Your task to perform on an android device: toggle airplane mode Image 0: 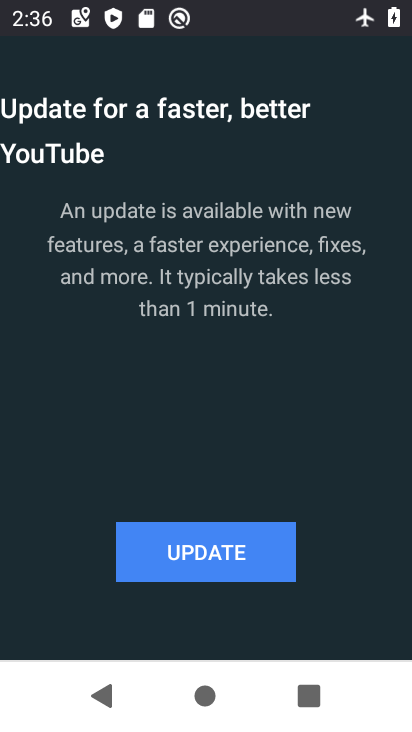
Step 0: press back button
Your task to perform on an android device: toggle airplane mode Image 1: 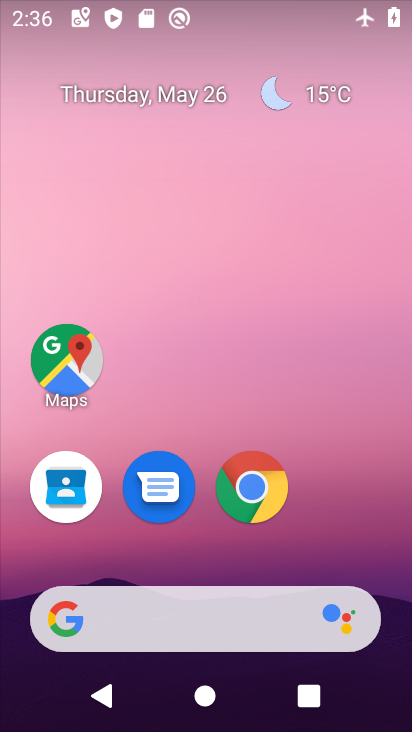
Step 1: drag from (197, 568) to (196, 142)
Your task to perform on an android device: toggle airplane mode Image 2: 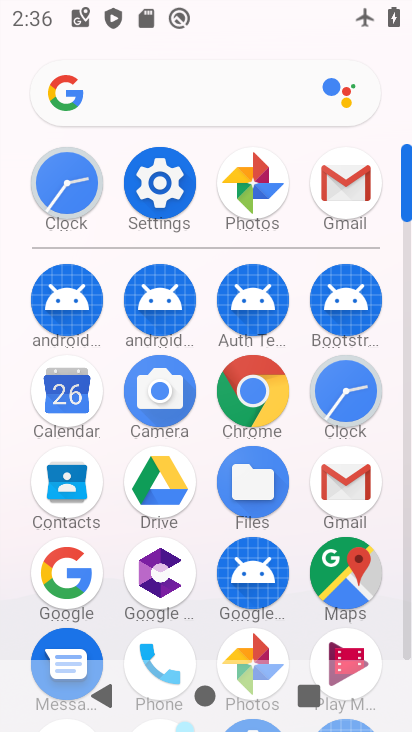
Step 2: click (175, 164)
Your task to perform on an android device: toggle airplane mode Image 3: 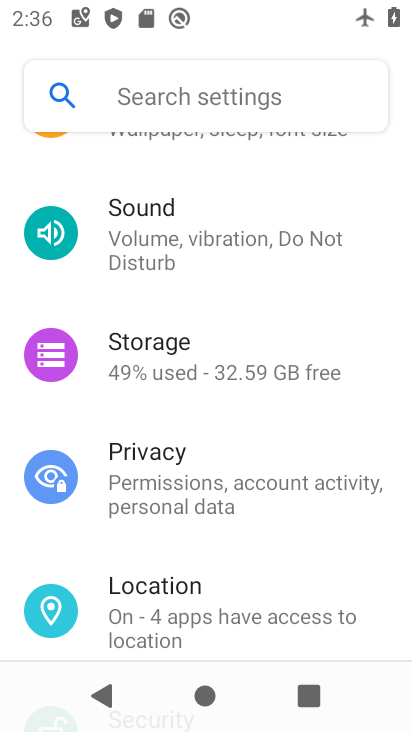
Step 3: drag from (229, 209) to (236, 525)
Your task to perform on an android device: toggle airplane mode Image 4: 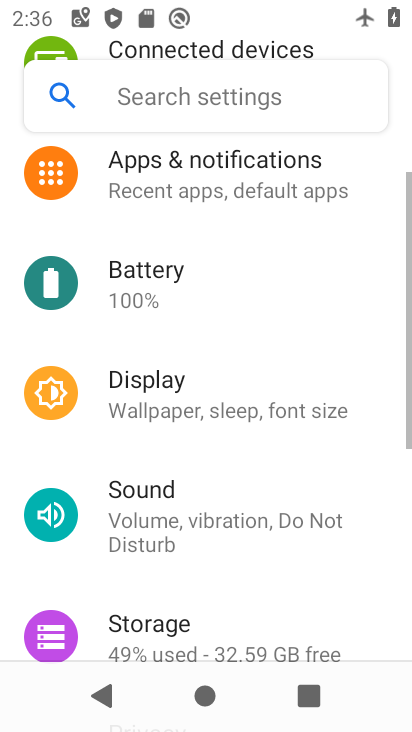
Step 4: drag from (233, 278) to (241, 518)
Your task to perform on an android device: toggle airplane mode Image 5: 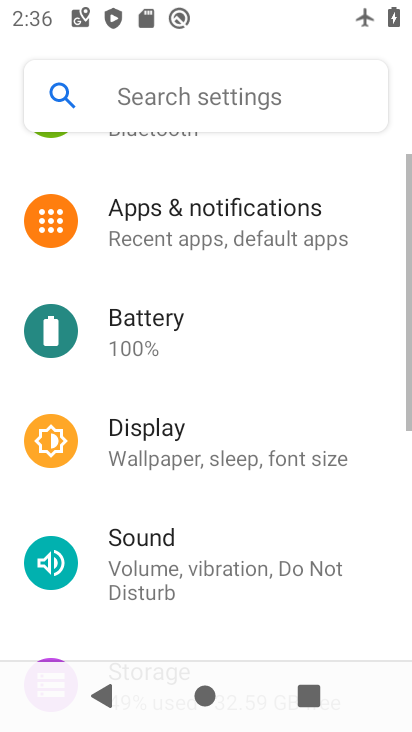
Step 5: drag from (238, 261) to (238, 482)
Your task to perform on an android device: toggle airplane mode Image 6: 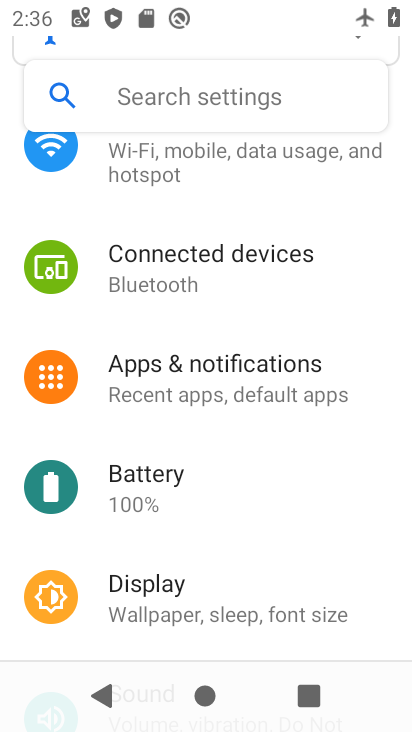
Step 6: drag from (241, 253) to (244, 544)
Your task to perform on an android device: toggle airplane mode Image 7: 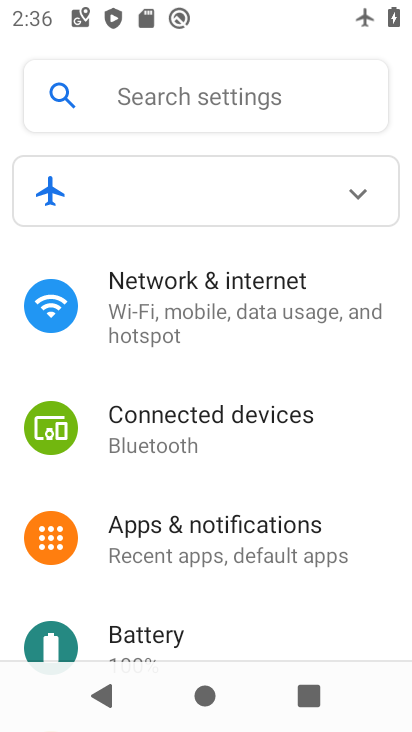
Step 7: click (209, 292)
Your task to perform on an android device: toggle airplane mode Image 8: 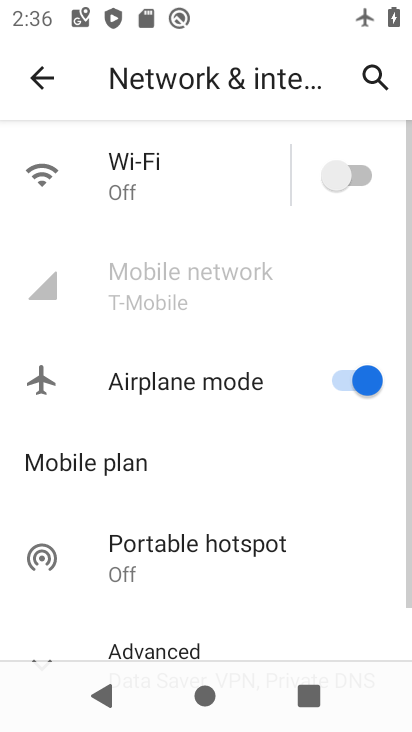
Step 8: click (336, 379)
Your task to perform on an android device: toggle airplane mode Image 9: 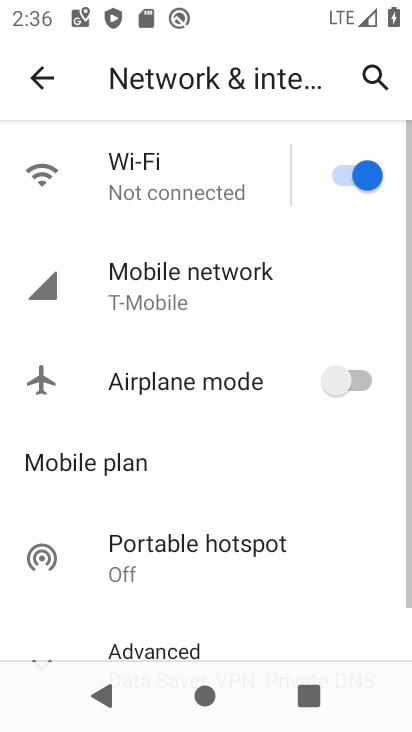
Step 9: task complete